Your task to perform on an android device: set the timer Image 0: 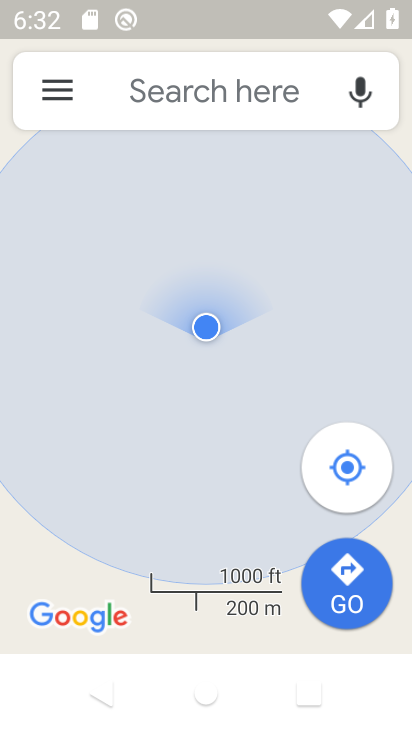
Step 0: press home button
Your task to perform on an android device: set the timer Image 1: 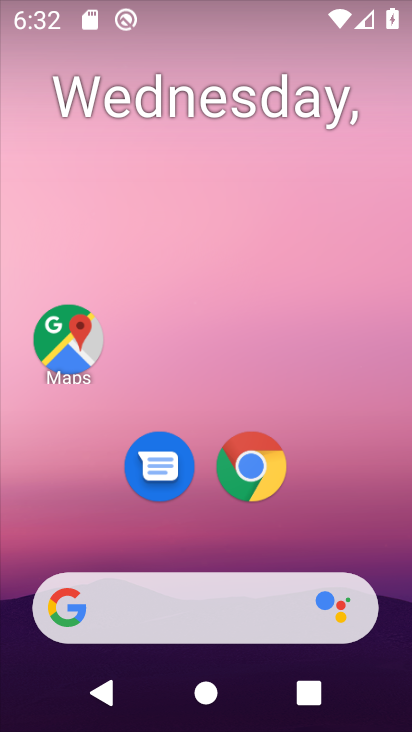
Step 1: drag from (332, 444) to (165, 1)
Your task to perform on an android device: set the timer Image 2: 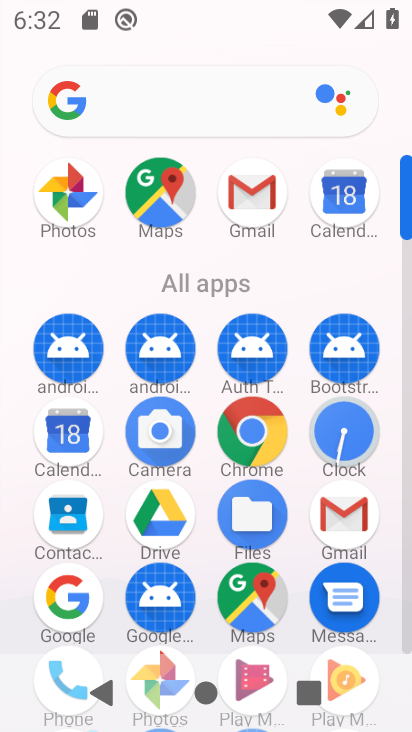
Step 2: click (343, 441)
Your task to perform on an android device: set the timer Image 3: 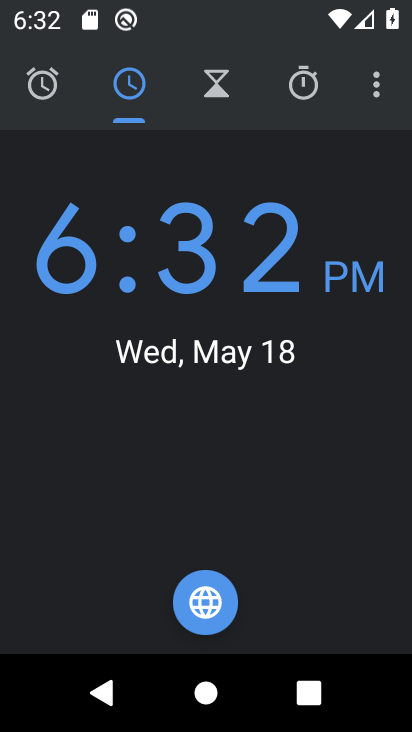
Step 3: click (217, 78)
Your task to perform on an android device: set the timer Image 4: 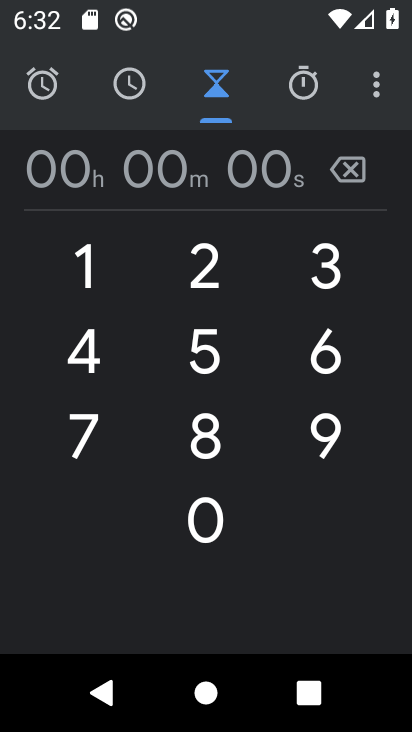
Step 4: click (87, 259)
Your task to perform on an android device: set the timer Image 5: 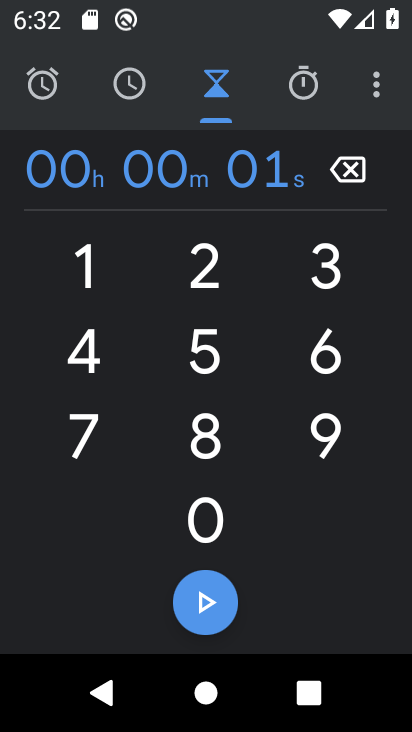
Step 5: click (87, 259)
Your task to perform on an android device: set the timer Image 6: 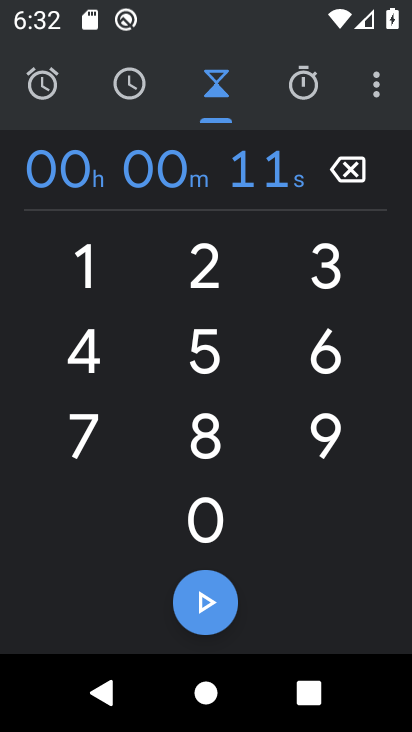
Step 6: click (87, 259)
Your task to perform on an android device: set the timer Image 7: 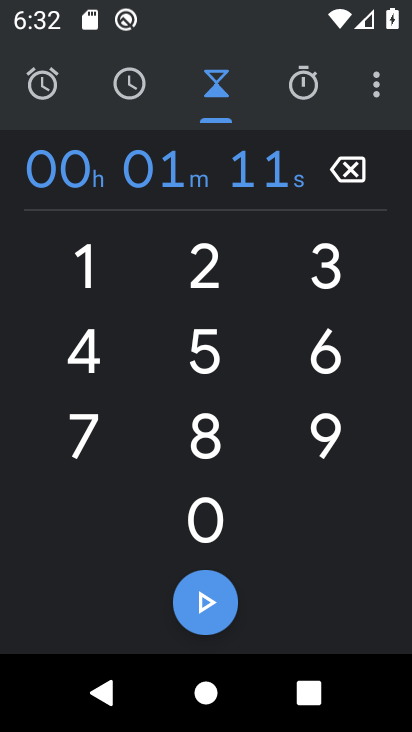
Step 7: click (87, 259)
Your task to perform on an android device: set the timer Image 8: 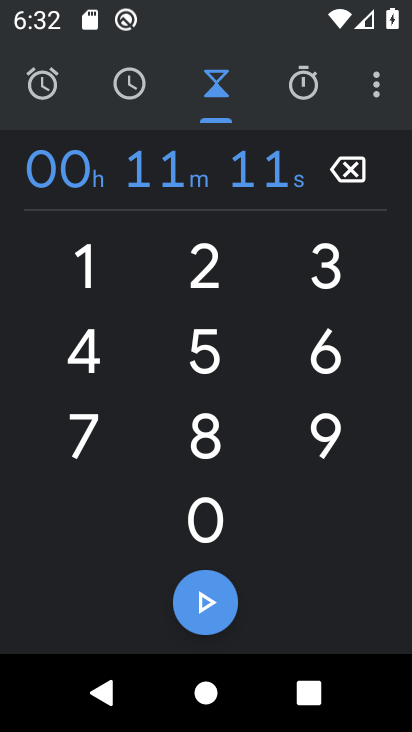
Step 8: click (87, 259)
Your task to perform on an android device: set the timer Image 9: 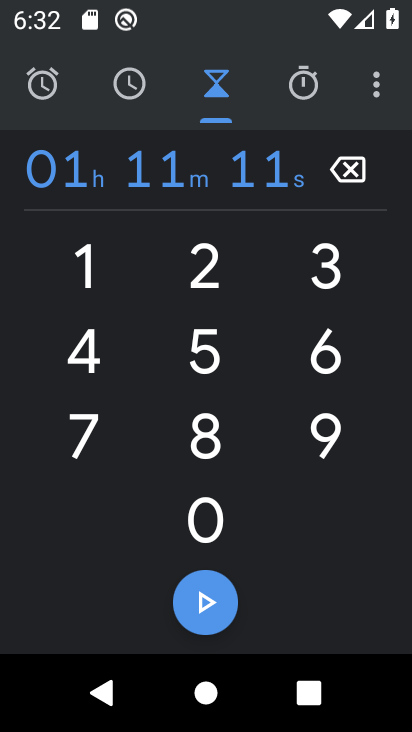
Step 9: task complete